Your task to perform on an android device: Open settings on Google Maps Image 0: 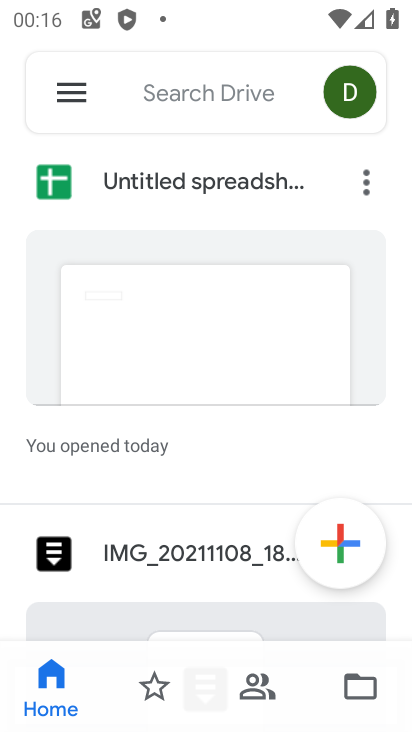
Step 0: press home button
Your task to perform on an android device: Open settings on Google Maps Image 1: 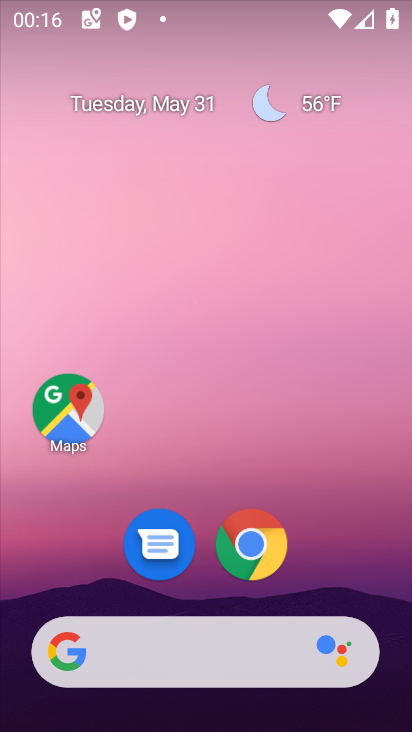
Step 1: click (45, 405)
Your task to perform on an android device: Open settings on Google Maps Image 2: 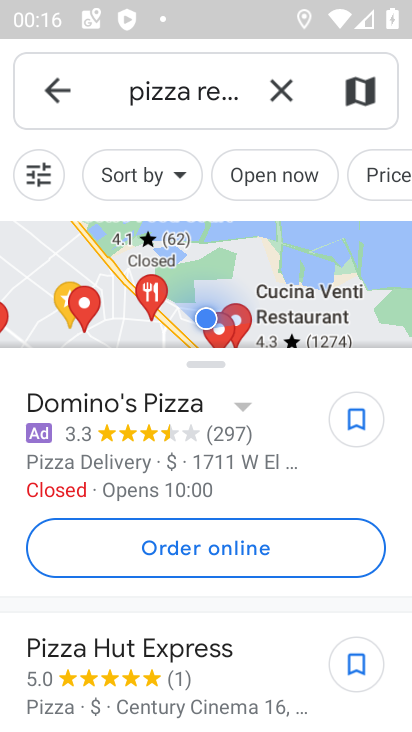
Step 2: click (49, 89)
Your task to perform on an android device: Open settings on Google Maps Image 3: 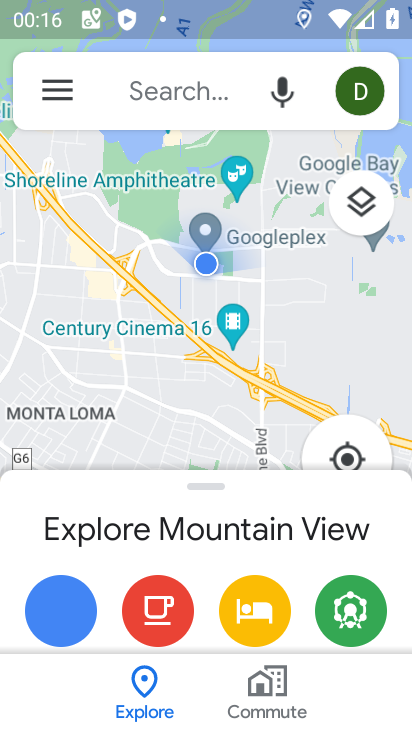
Step 3: click (50, 90)
Your task to perform on an android device: Open settings on Google Maps Image 4: 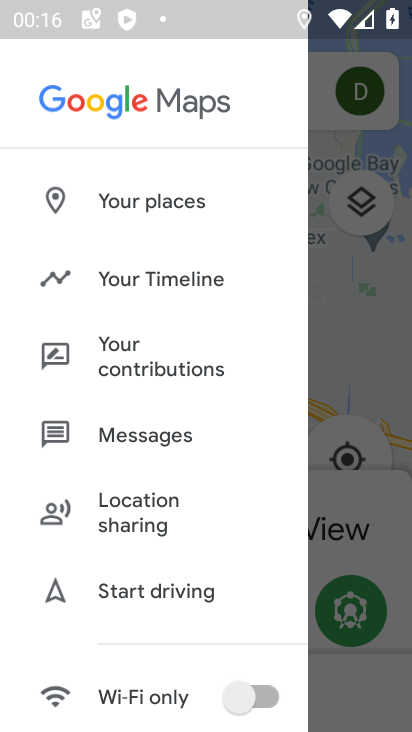
Step 4: drag from (170, 610) to (165, 323)
Your task to perform on an android device: Open settings on Google Maps Image 5: 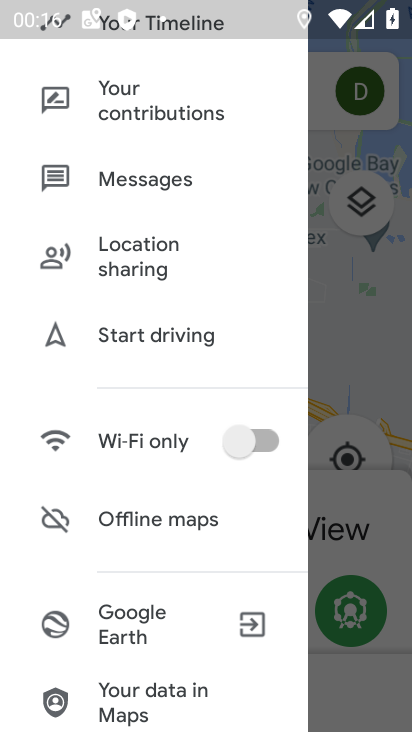
Step 5: drag from (167, 552) to (163, 108)
Your task to perform on an android device: Open settings on Google Maps Image 6: 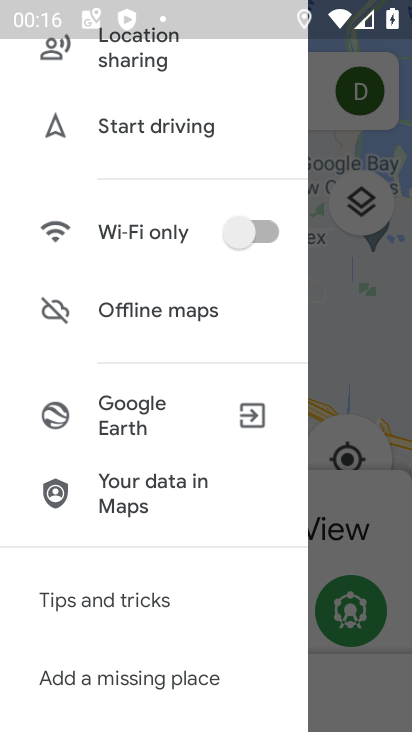
Step 6: drag from (161, 627) to (102, 206)
Your task to perform on an android device: Open settings on Google Maps Image 7: 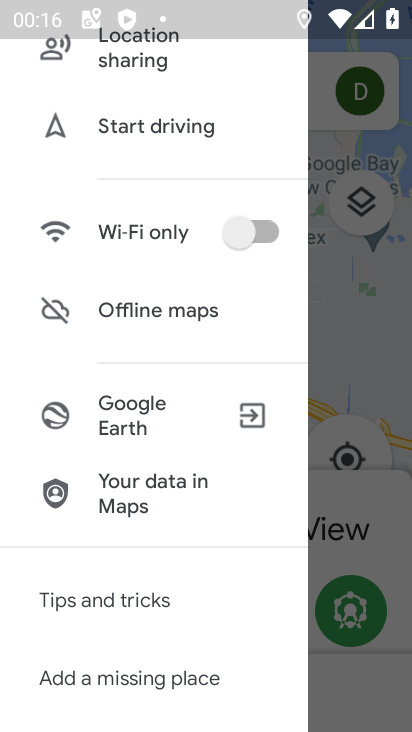
Step 7: drag from (184, 581) to (173, 262)
Your task to perform on an android device: Open settings on Google Maps Image 8: 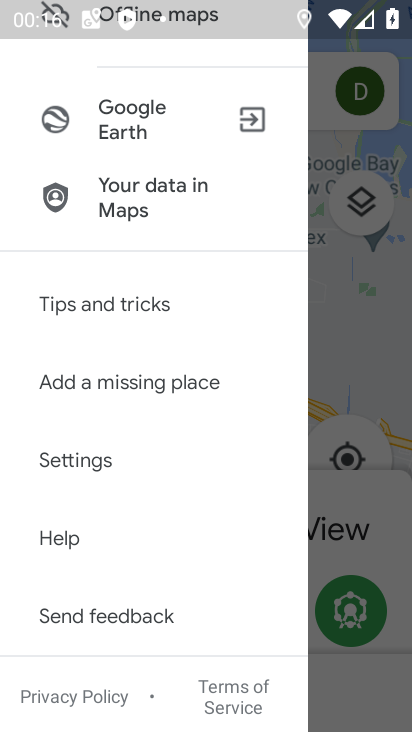
Step 8: click (87, 448)
Your task to perform on an android device: Open settings on Google Maps Image 9: 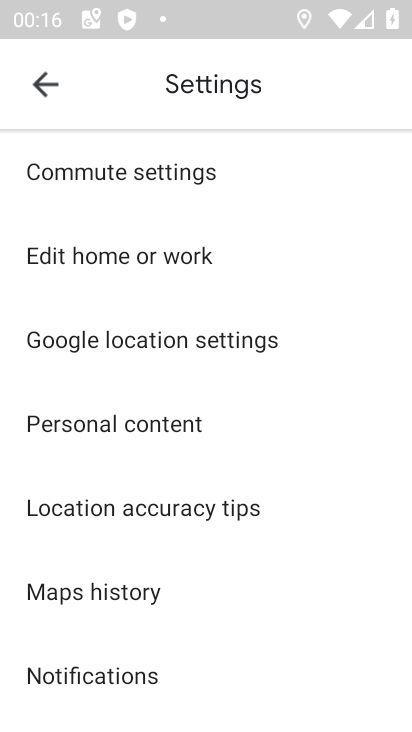
Step 9: task complete